Your task to perform on an android device: Go to internet settings Image 0: 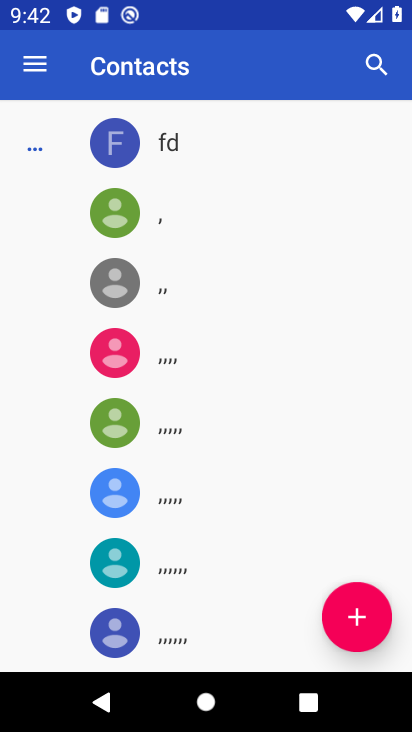
Step 0: press home button
Your task to perform on an android device: Go to internet settings Image 1: 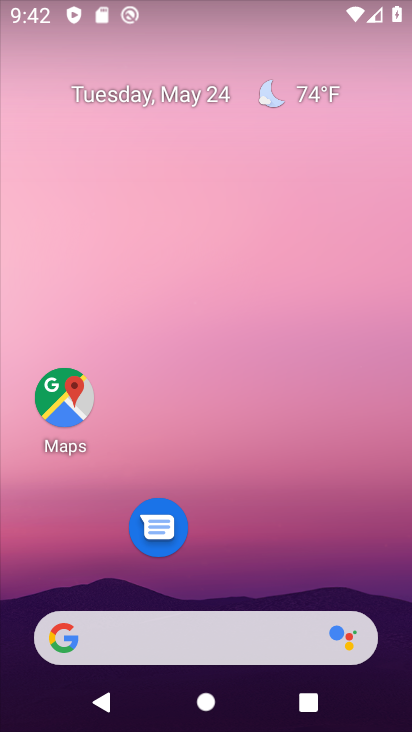
Step 1: drag from (185, 573) to (259, 50)
Your task to perform on an android device: Go to internet settings Image 2: 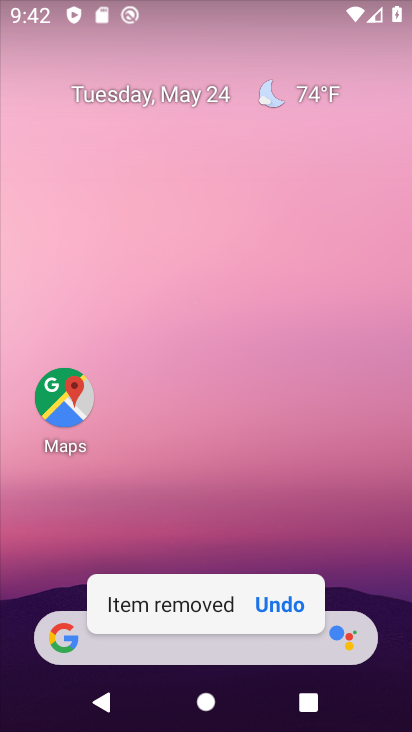
Step 2: drag from (234, 538) to (153, 120)
Your task to perform on an android device: Go to internet settings Image 3: 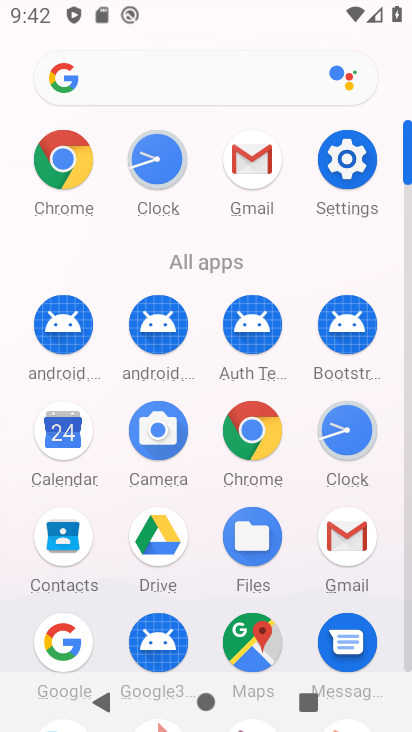
Step 3: click (322, 166)
Your task to perform on an android device: Go to internet settings Image 4: 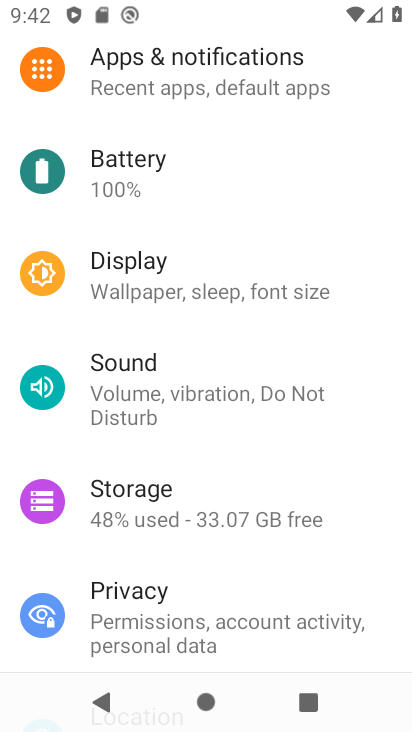
Step 4: drag from (322, 166) to (218, 690)
Your task to perform on an android device: Go to internet settings Image 5: 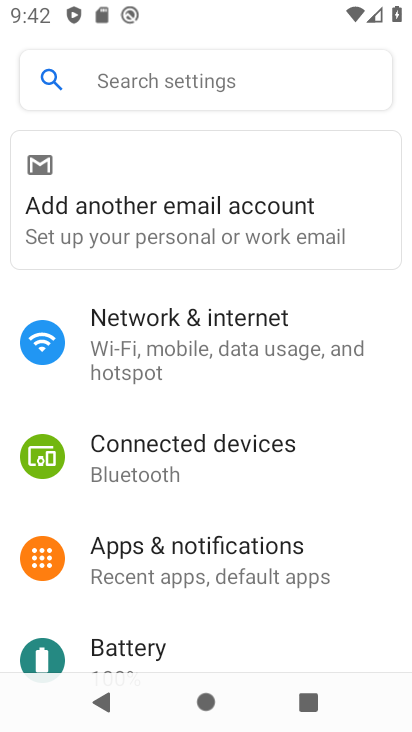
Step 5: click (191, 352)
Your task to perform on an android device: Go to internet settings Image 6: 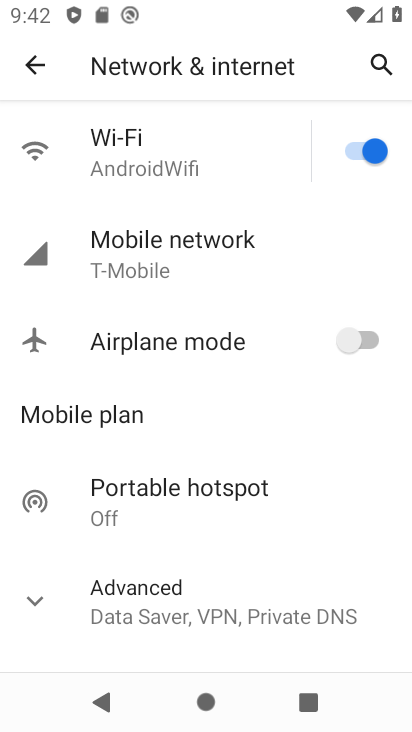
Step 6: click (174, 240)
Your task to perform on an android device: Go to internet settings Image 7: 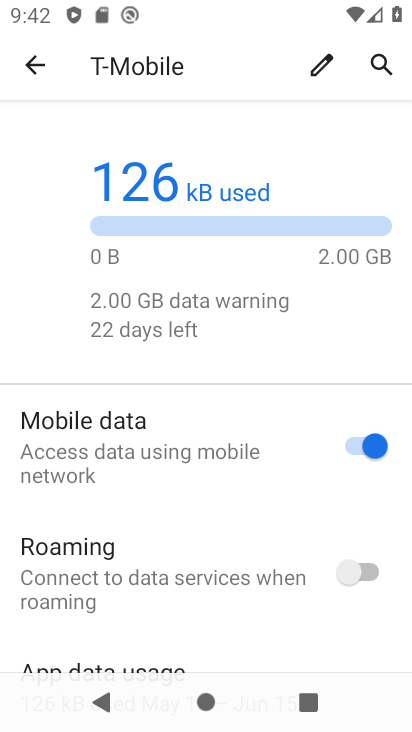
Step 7: click (174, 240)
Your task to perform on an android device: Go to internet settings Image 8: 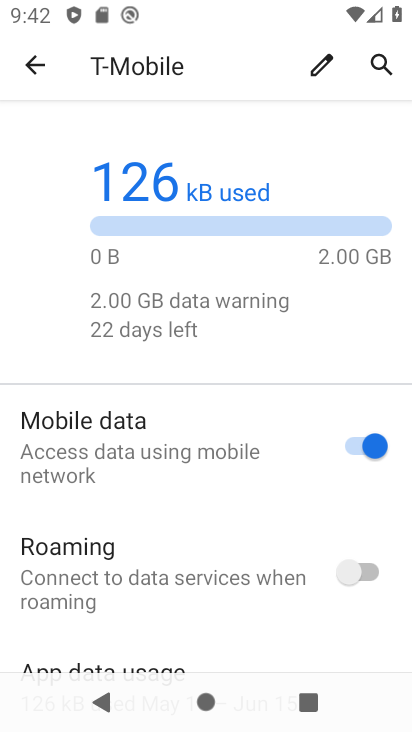
Step 8: task complete